Your task to perform on an android device: Open sound settings Image 0: 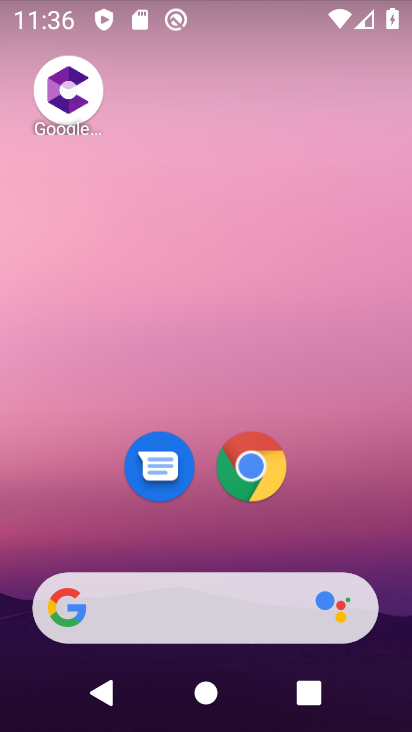
Step 0: drag from (214, 531) to (208, 97)
Your task to perform on an android device: Open sound settings Image 1: 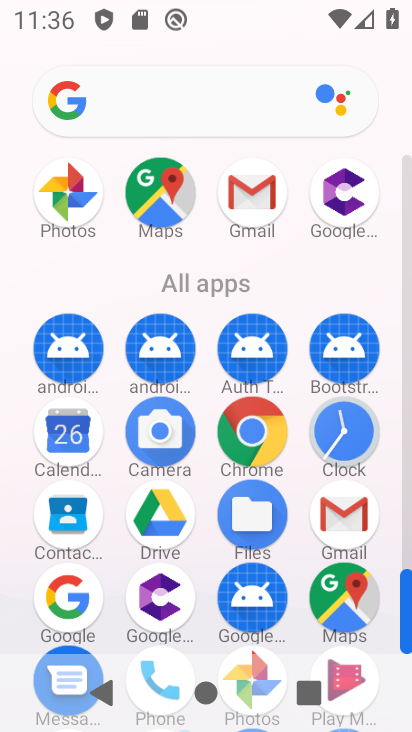
Step 1: drag from (299, 604) to (250, 261)
Your task to perform on an android device: Open sound settings Image 2: 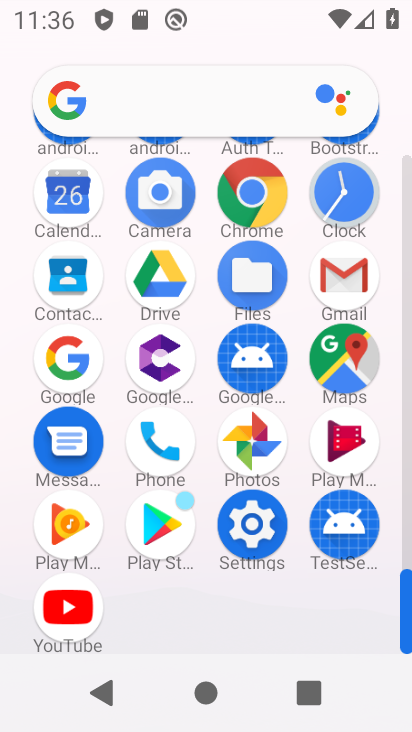
Step 2: click (255, 521)
Your task to perform on an android device: Open sound settings Image 3: 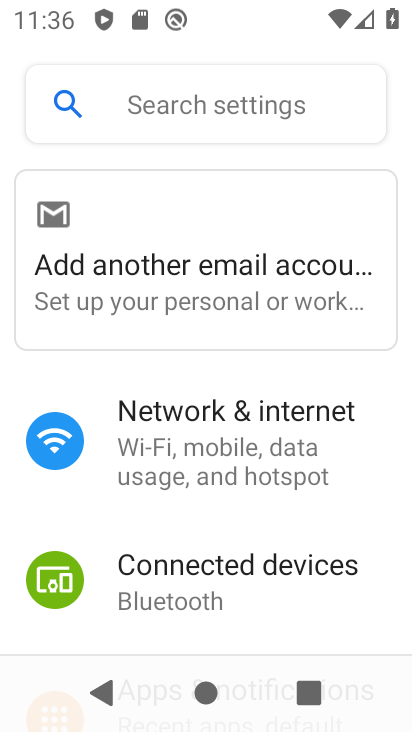
Step 3: drag from (258, 565) to (281, 99)
Your task to perform on an android device: Open sound settings Image 4: 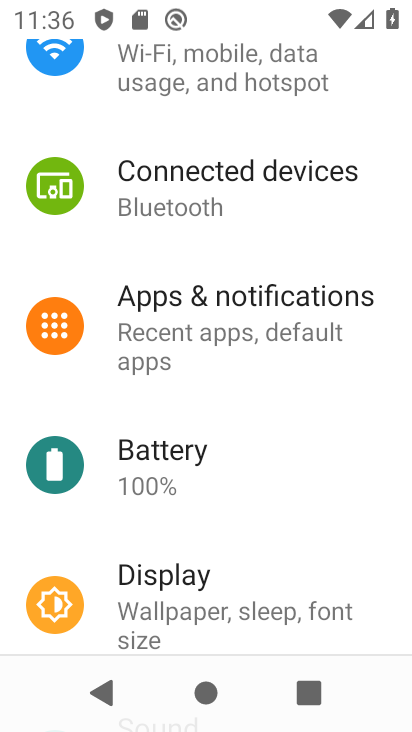
Step 4: drag from (224, 551) to (189, 108)
Your task to perform on an android device: Open sound settings Image 5: 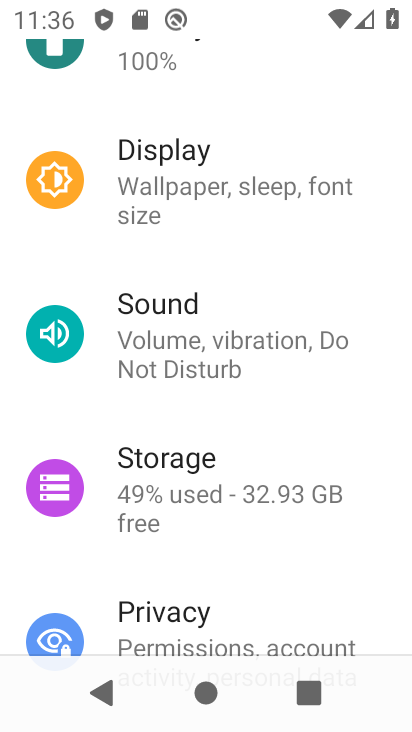
Step 5: click (210, 345)
Your task to perform on an android device: Open sound settings Image 6: 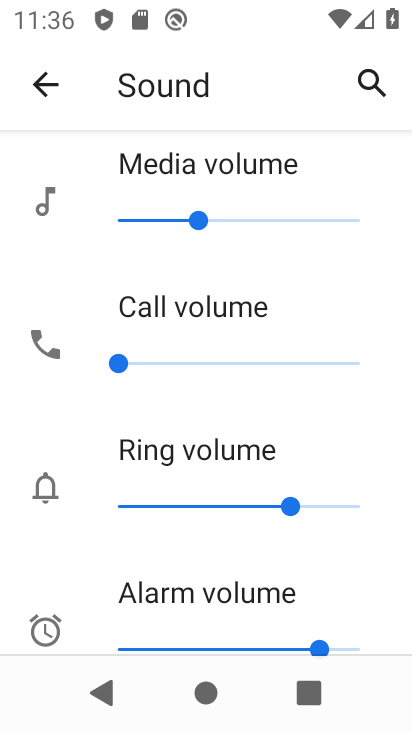
Step 6: task complete